Your task to perform on an android device: toggle notification dots Image 0: 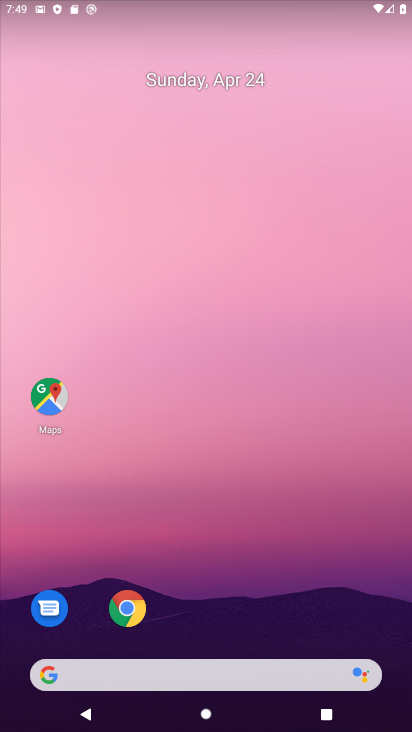
Step 0: drag from (218, 660) to (363, 0)
Your task to perform on an android device: toggle notification dots Image 1: 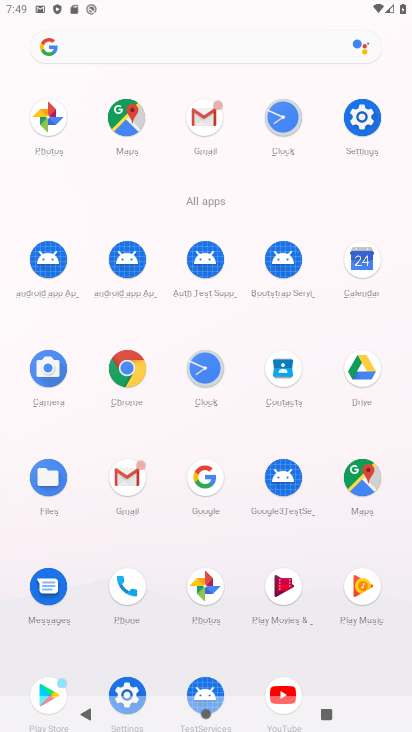
Step 1: click (128, 686)
Your task to perform on an android device: toggle notification dots Image 2: 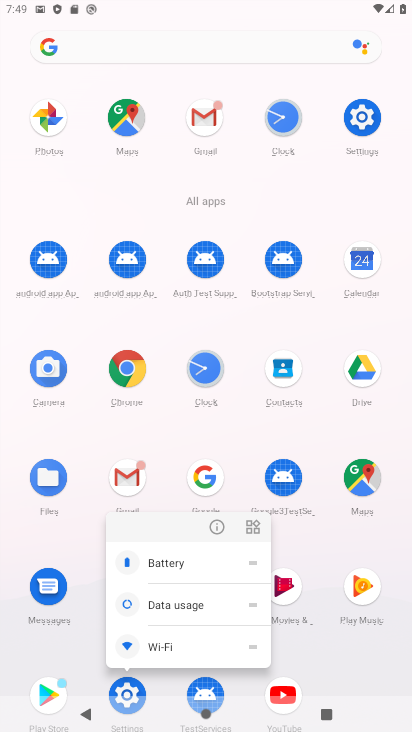
Step 2: click (122, 694)
Your task to perform on an android device: toggle notification dots Image 3: 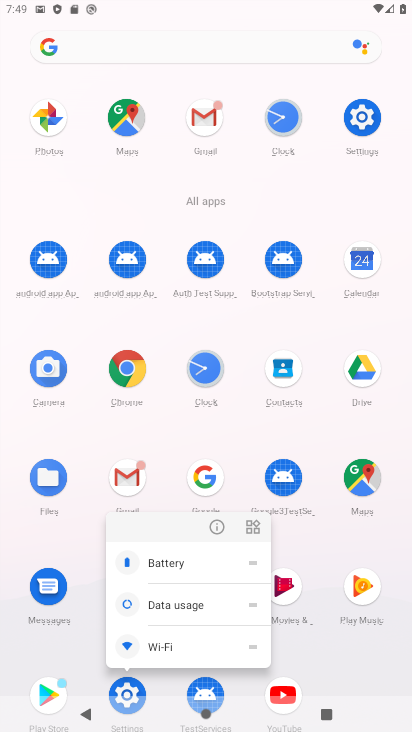
Step 3: click (122, 698)
Your task to perform on an android device: toggle notification dots Image 4: 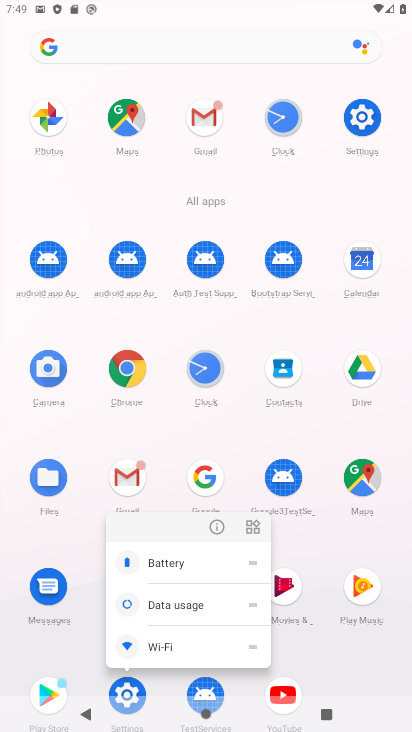
Step 4: click (131, 702)
Your task to perform on an android device: toggle notification dots Image 5: 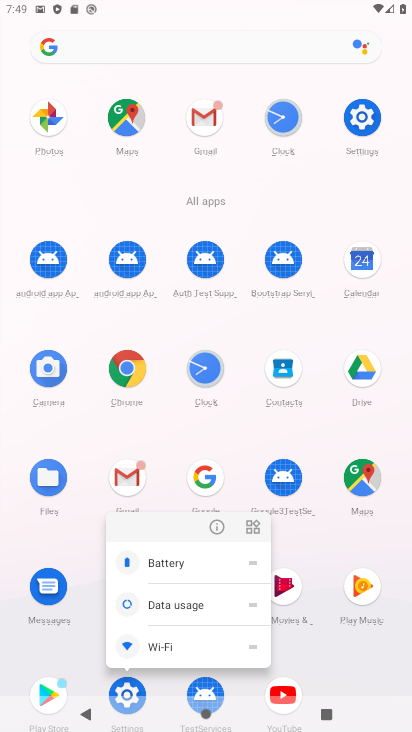
Step 5: click (129, 687)
Your task to perform on an android device: toggle notification dots Image 6: 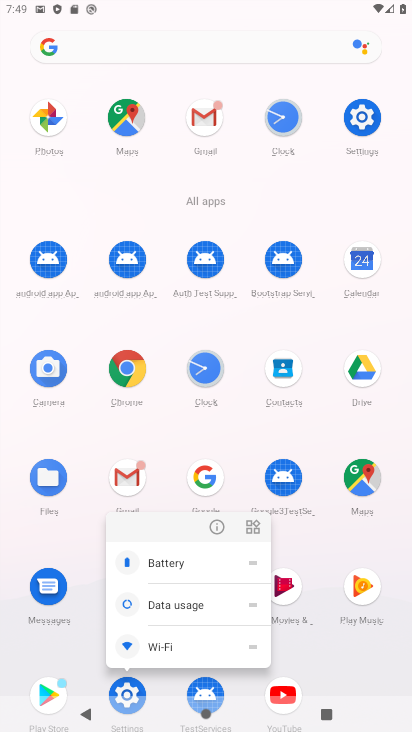
Step 6: click (127, 690)
Your task to perform on an android device: toggle notification dots Image 7: 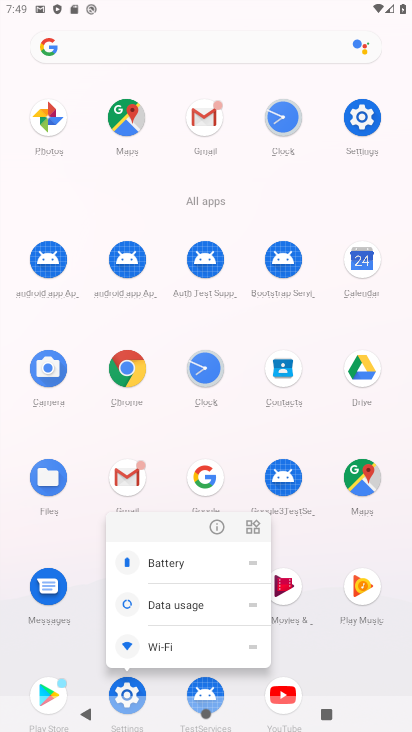
Step 7: click (143, 690)
Your task to perform on an android device: toggle notification dots Image 8: 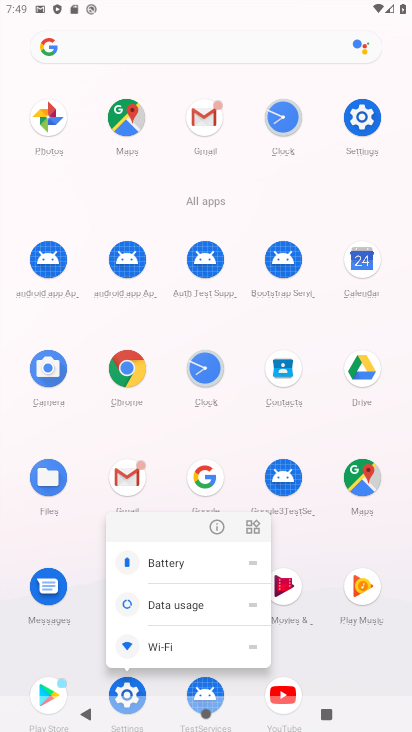
Step 8: click (135, 692)
Your task to perform on an android device: toggle notification dots Image 9: 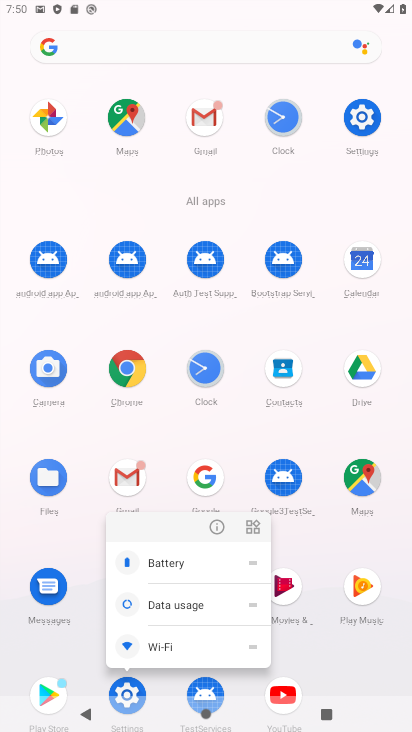
Step 9: click (121, 697)
Your task to perform on an android device: toggle notification dots Image 10: 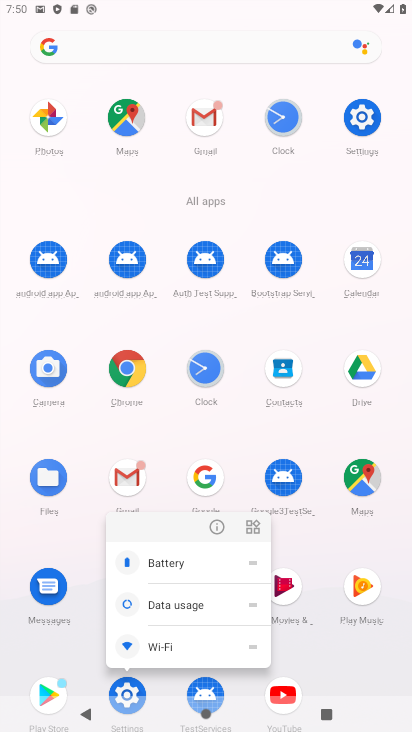
Step 10: click (135, 695)
Your task to perform on an android device: toggle notification dots Image 11: 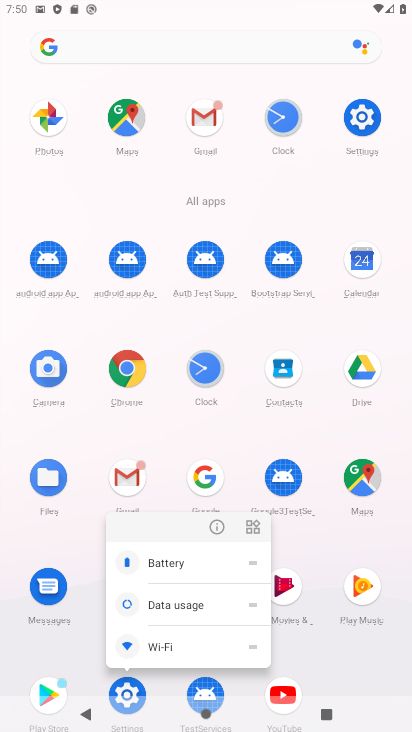
Step 11: click (130, 696)
Your task to perform on an android device: toggle notification dots Image 12: 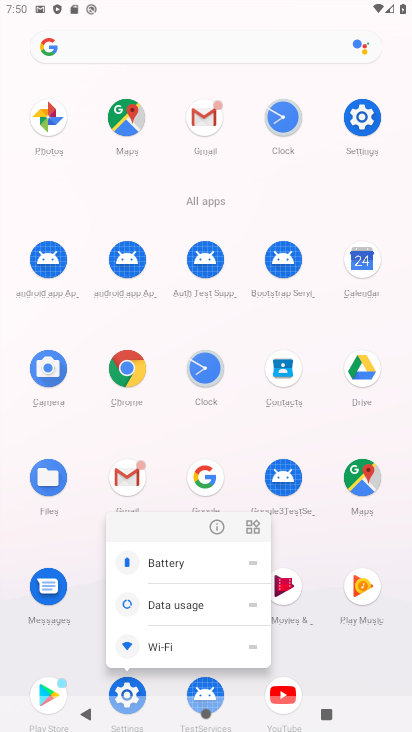
Step 12: click (126, 686)
Your task to perform on an android device: toggle notification dots Image 13: 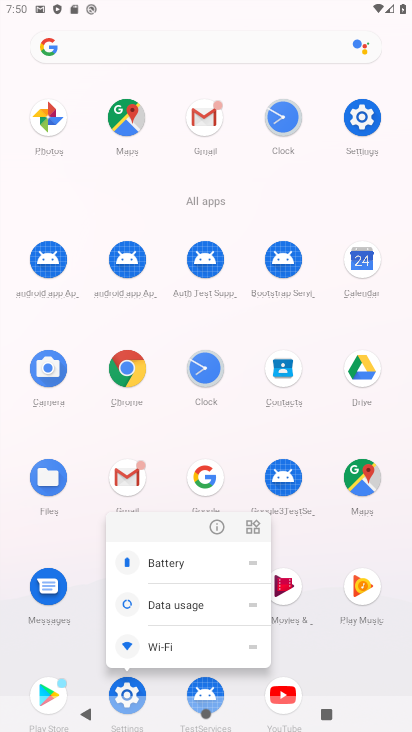
Step 13: click (121, 693)
Your task to perform on an android device: toggle notification dots Image 14: 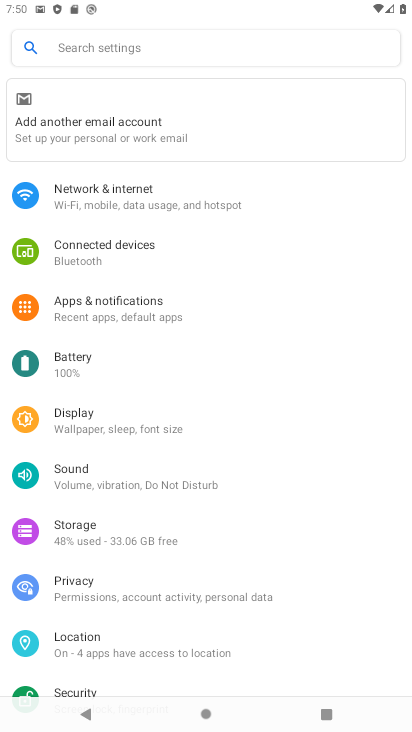
Step 14: click (176, 318)
Your task to perform on an android device: toggle notification dots Image 15: 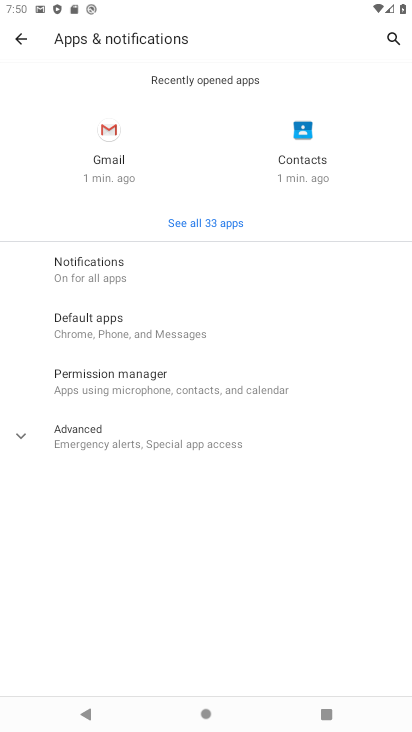
Step 15: click (157, 440)
Your task to perform on an android device: toggle notification dots Image 16: 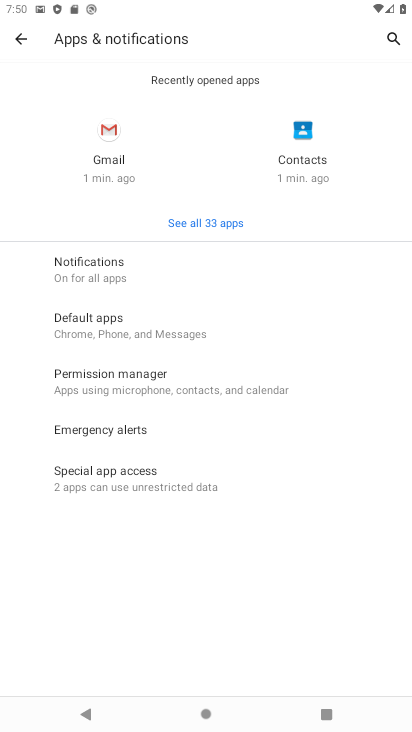
Step 16: click (182, 279)
Your task to perform on an android device: toggle notification dots Image 17: 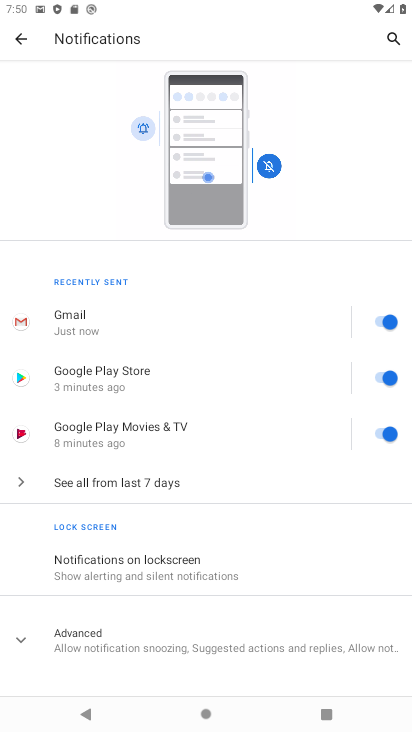
Step 17: drag from (175, 614) to (279, 243)
Your task to perform on an android device: toggle notification dots Image 18: 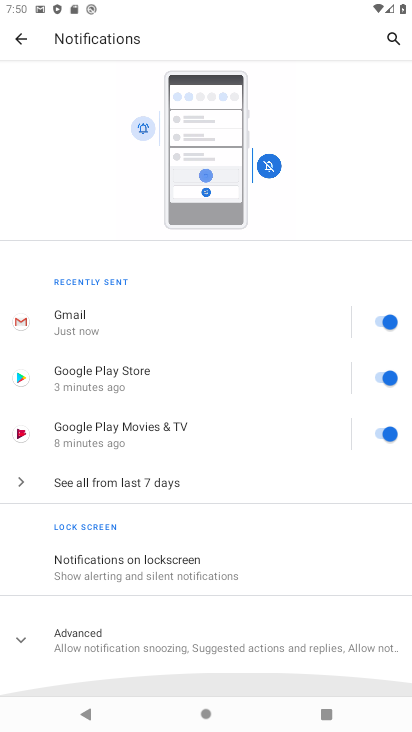
Step 18: click (197, 630)
Your task to perform on an android device: toggle notification dots Image 19: 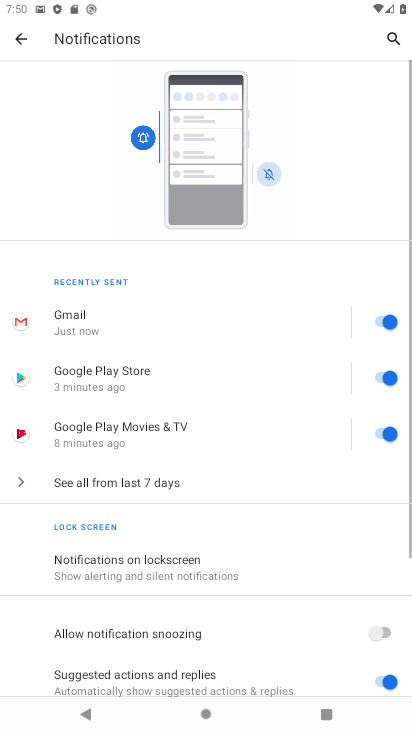
Step 19: drag from (202, 629) to (320, 126)
Your task to perform on an android device: toggle notification dots Image 20: 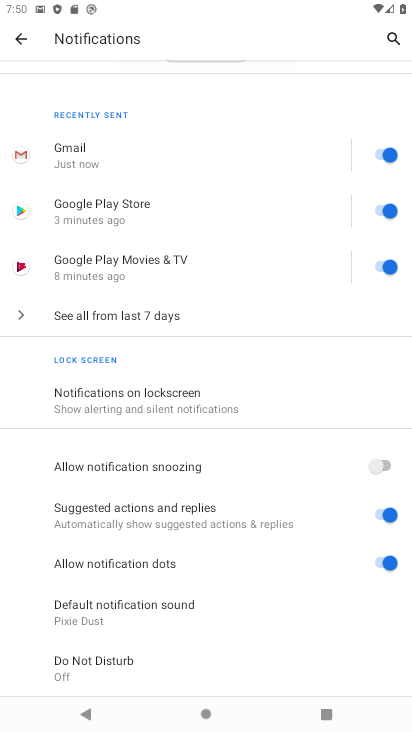
Step 20: click (382, 559)
Your task to perform on an android device: toggle notification dots Image 21: 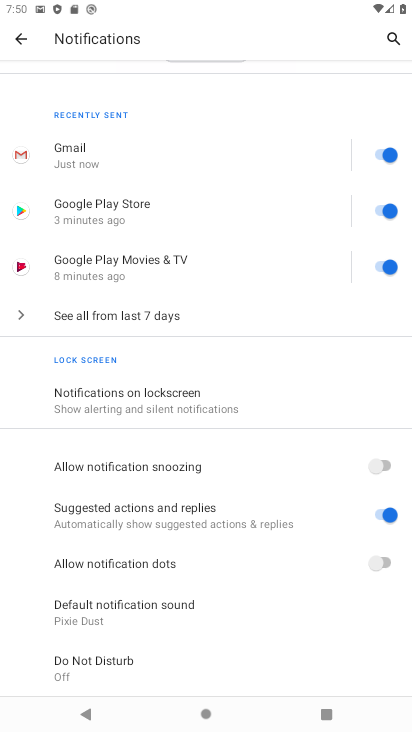
Step 21: task complete